Your task to perform on an android device: turn vacation reply on in the gmail app Image 0: 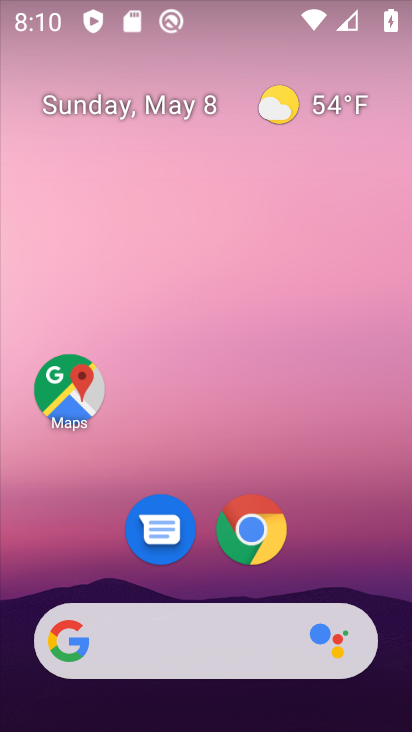
Step 0: drag from (360, 566) to (407, 119)
Your task to perform on an android device: turn vacation reply on in the gmail app Image 1: 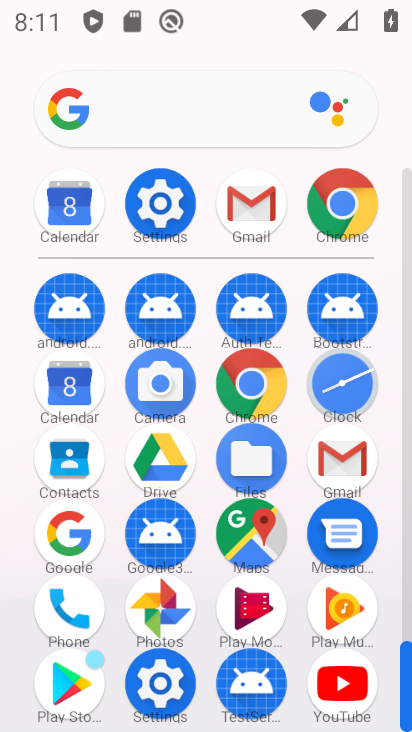
Step 1: click (364, 464)
Your task to perform on an android device: turn vacation reply on in the gmail app Image 2: 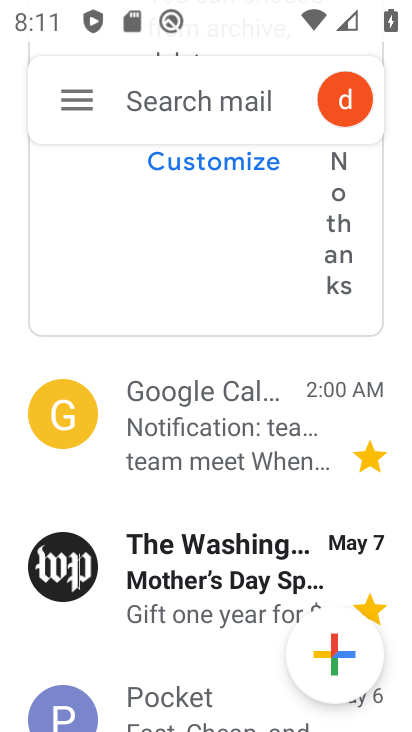
Step 2: drag from (221, 648) to (246, 289)
Your task to perform on an android device: turn vacation reply on in the gmail app Image 3: 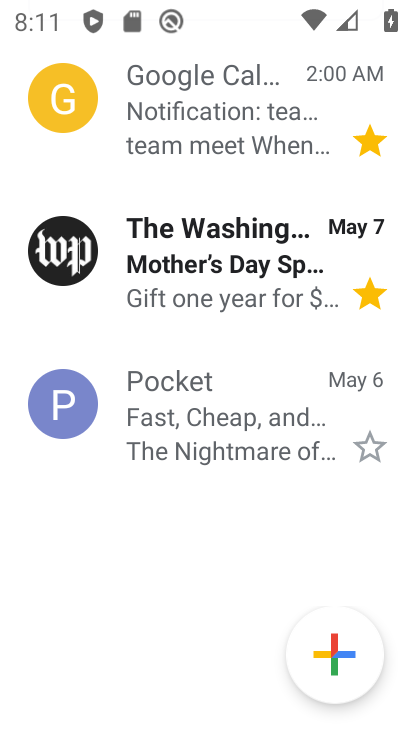
Step 3: drag from (229, 102) to (239, 453)
Your task to perform on an android device: turn vacation reply on in the gmail app Image 4: 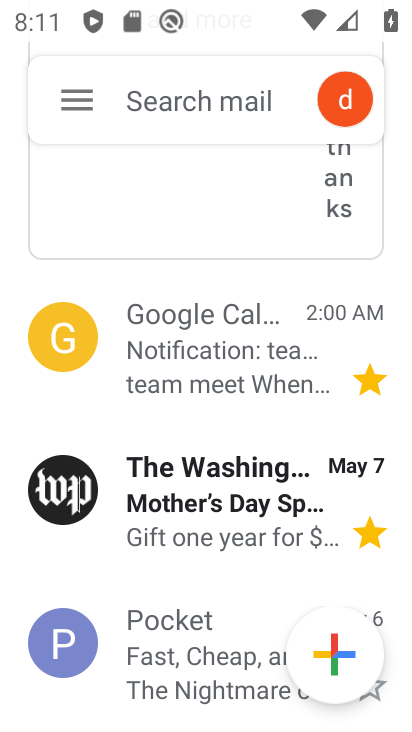
Step 4: click (77, 113)
Your task to perform on an android device: turn vacation reply on in the gmail app Image 5: 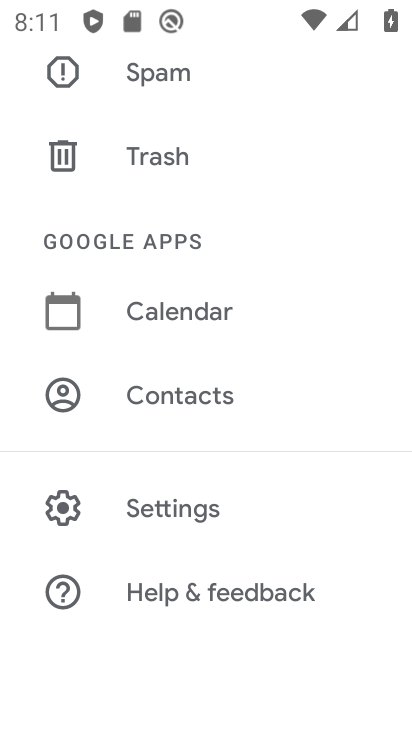
Step 5: click (162, 502)
Your task to perform on an android device: turn vacation reply on in the gmail app Image 6: 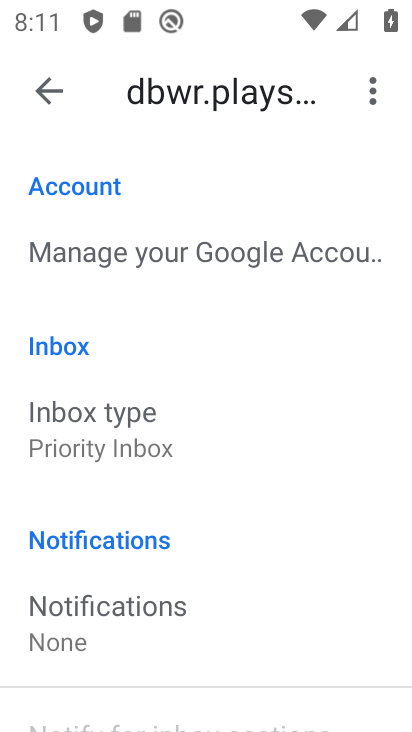
Step 6: drag from (253, 635) to (249, 289)
Your task to perform on an android device: turn vacation reply on in the gmail app Image 7: 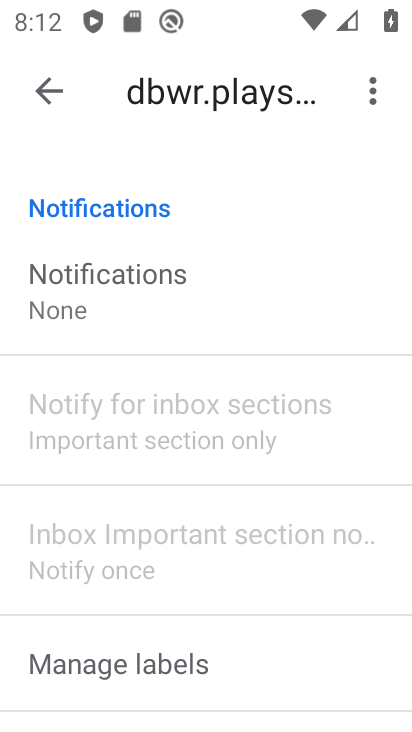
Step 7: drag from (330, 645) to (325, 336)
Your task to perform on an android device: turn vacation reply on in the gmail app Image 8: 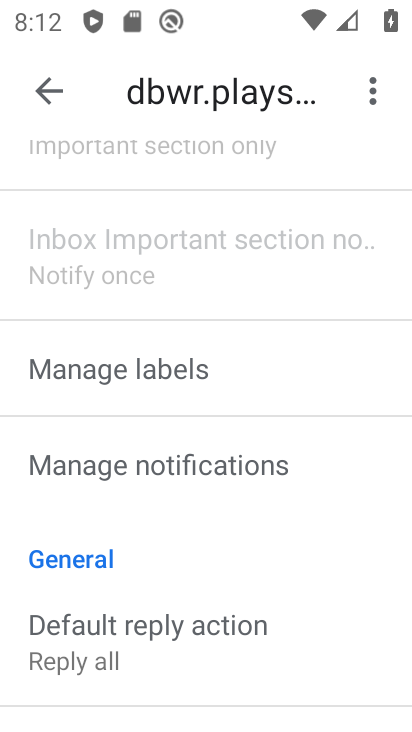
Step 8: drag from (292, 580) to (292, 269)
Your task to perform on an android device: turn vacation reply on in the gmail app Image 9: 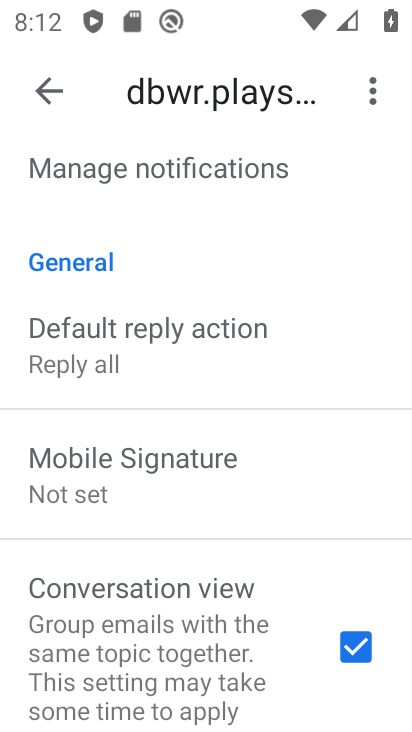
Step 9: drag from (292, 540) to (291, 254)
Your task to perform on an android device: turn vacation reply on in the gmail app Image 10: 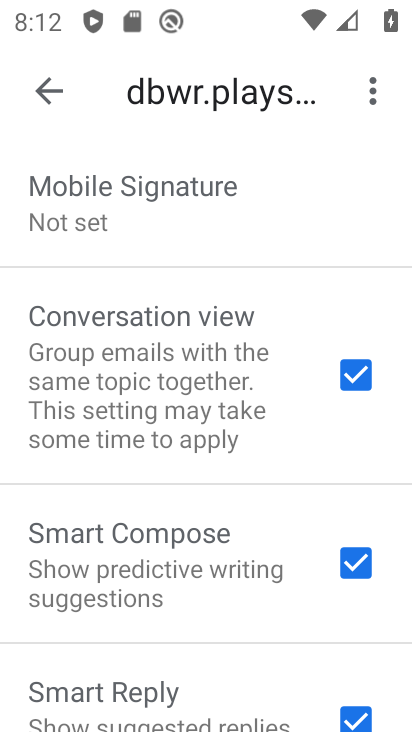
Step 10: drag from (267, 608) to (279, 332)
Your task to perform on an android device: turn vacation reply on in the gmail app Image 11: 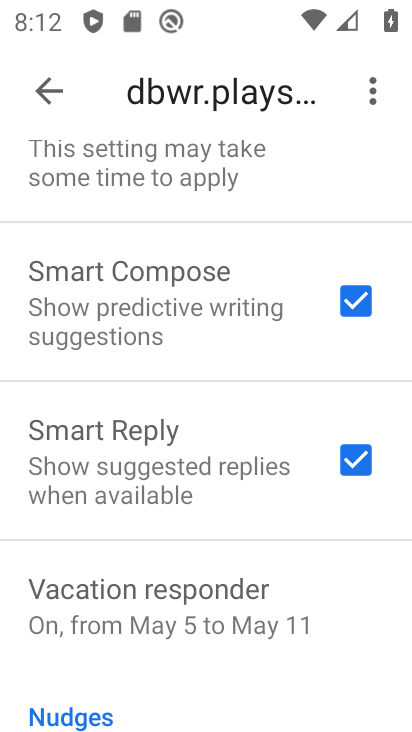
Step 11: click (260, 578)
Your task to perform on an android device: turn vacation reply on in the gmail app Image 12: 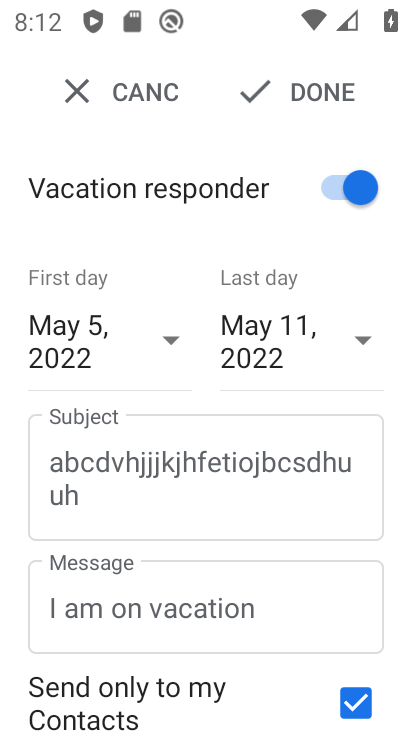
Step 12: task complete